Your task to perform on an android device: Open internet settings Image 0: 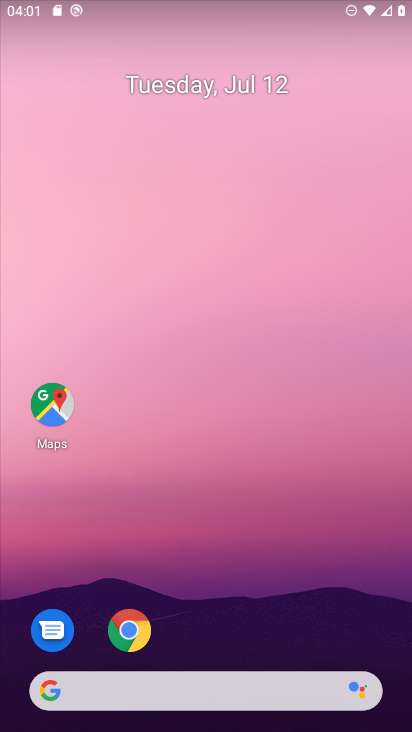
Step 0: drag from (342, 624) to (324, 78)
Your task to perform on an android device: Open internet settings Image 1: 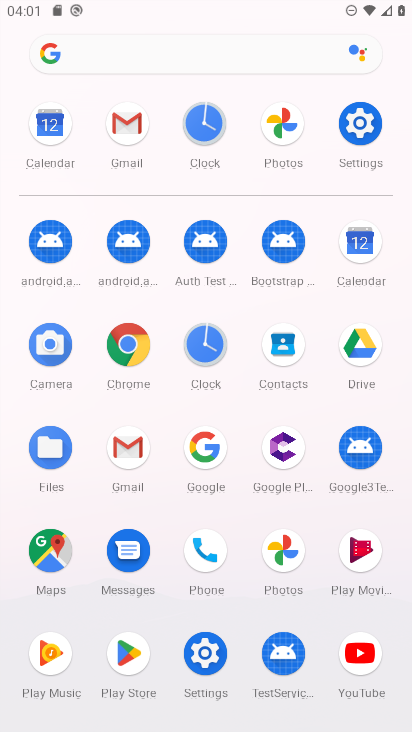
Step 1: click (203, 650)
Your task to perform on an android device: Open internet settings Image 2: 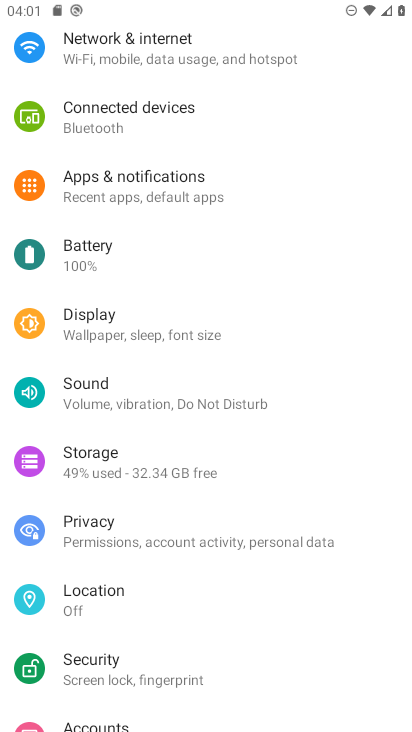
Step 2: click (122, 42)
Your task to perform on an android device: Open internet settings Image 3: 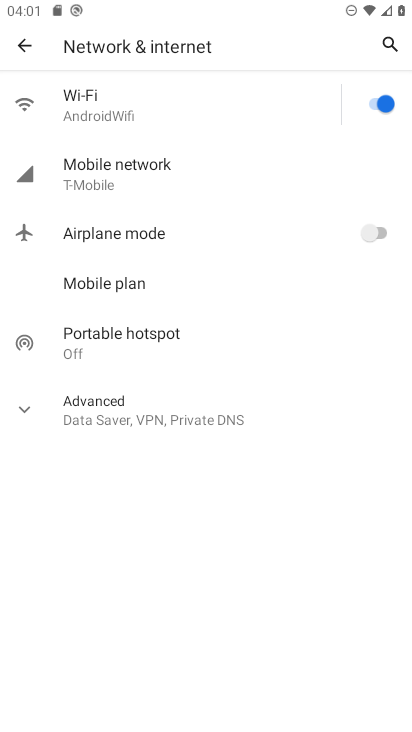
Step 3: click (71, 92)
Your task to perform on an android device: Open internet settings Image 4: 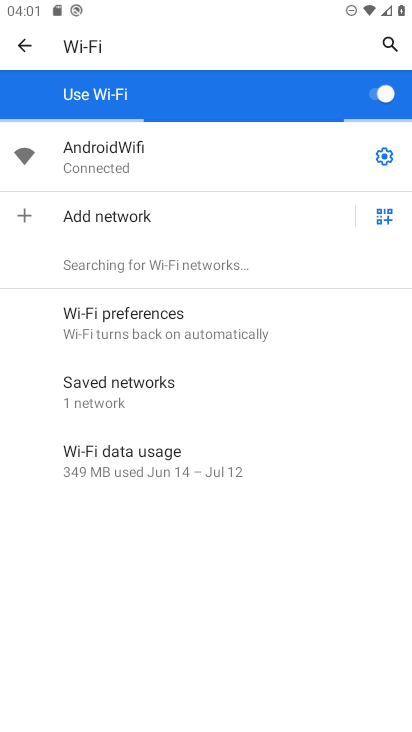
Step 4: task complete